Your task to perform on an android device: Open Chrome and go to settings Image 0: 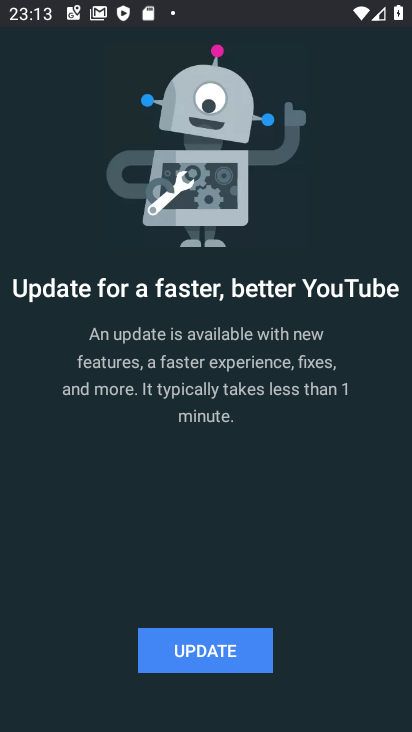
Step 0: press home button
Your task to perform on an android device: Open Chrome and go to settings Image 1: 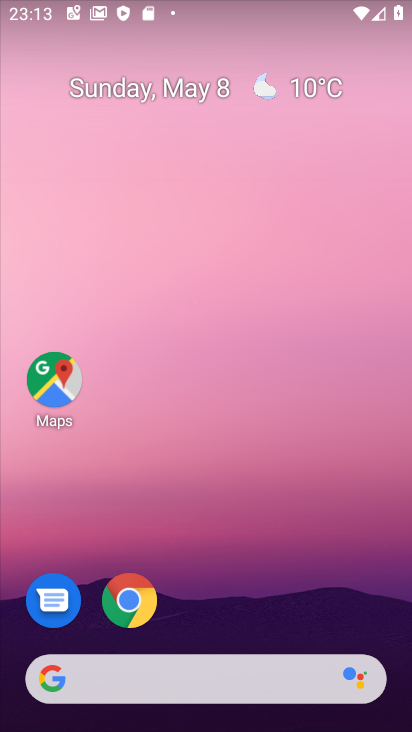
Step 1: click (133, 607)
Your task to perform on an android device: Open Chrome and go to settings Image 2: 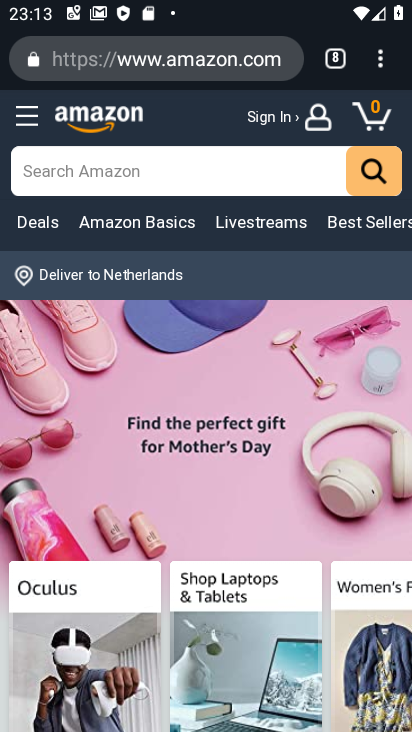
Step 2: click (371, 51)
Your task to perform on an android device: Open Chrome and go to settings Image 3: 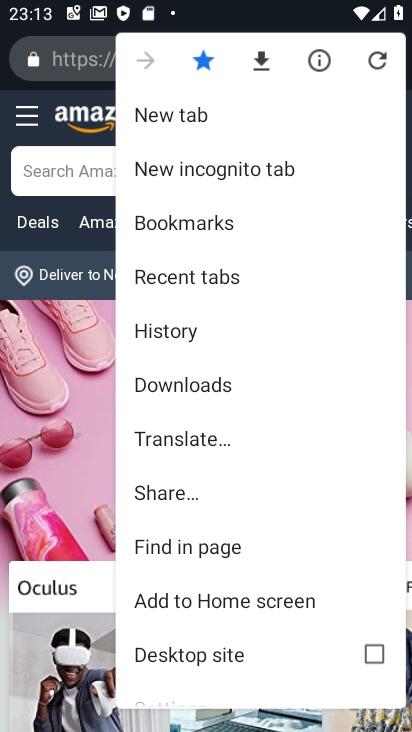
Step 3: drag from (192, 640) to (197, 197)
Your task to perform on an android device: Open Chrome and go to settings Image 4: 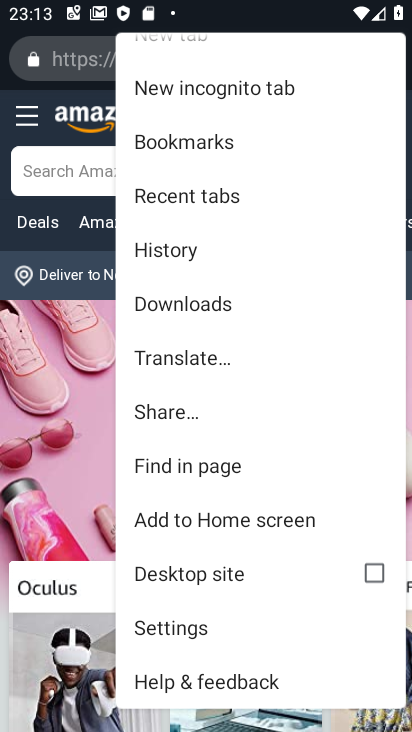
Step 4: click (185, 620)
Your task to perform on an android device: Open Chrome and go to settings Image 5: 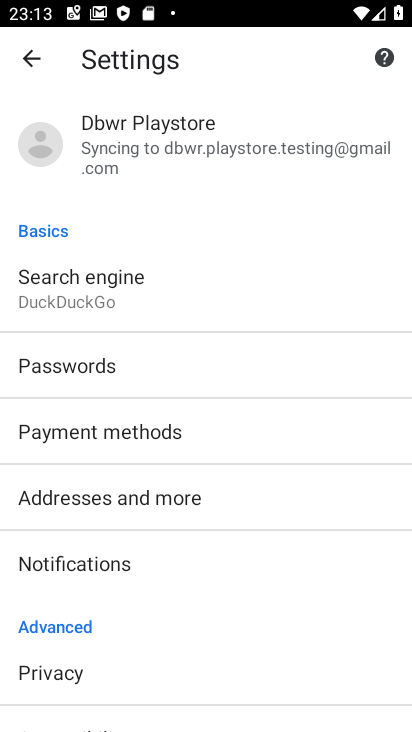
Step 5: task complete